Your task to perform on an android device: Play the last video I watched on Youtube Image 0: 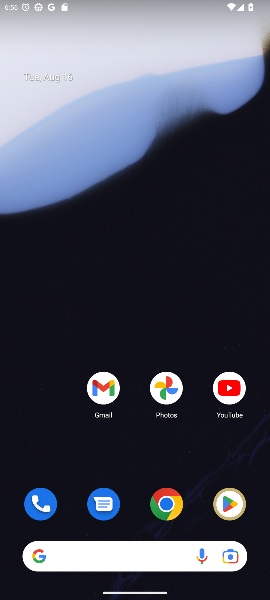
Step 0: click (233, 393)
Your task to perform on an android device: Play the last video I watched on Youtube Image 1: 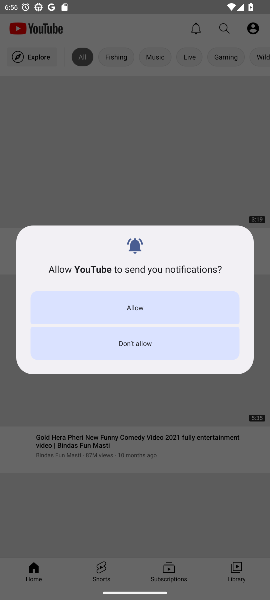
Step 1: click (102, 310)
Your task to perform on an android device: Play the last video I watched on Youtube Image 2: 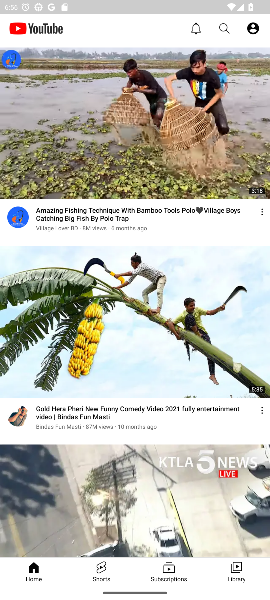
Step 2: click (231, 572)
Your task to perform on an android device: Play the last video I watched on Youtube Image 3: 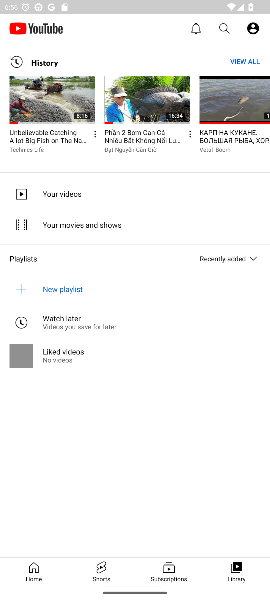
Step 3: click (35, 105)
Your task to perform on an android device: Play the last video I watched on Youtube Image 4: 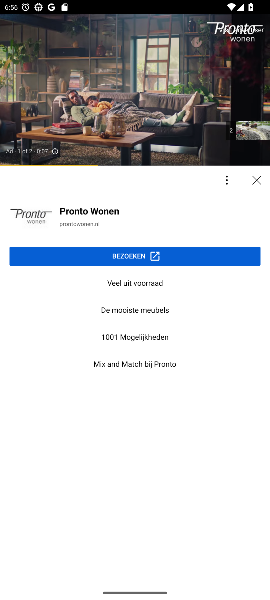
Step 4: task complete